Your task to perform on an android device: Open network settings Image 0: 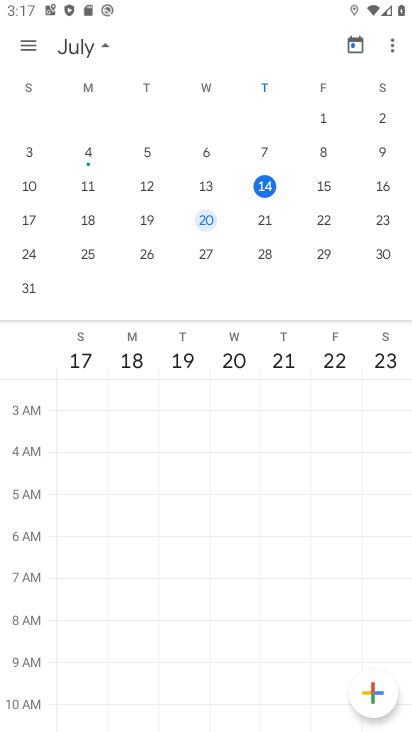
Step 0: press home button
Your task to perform on an android device: Open network settings Image 1: 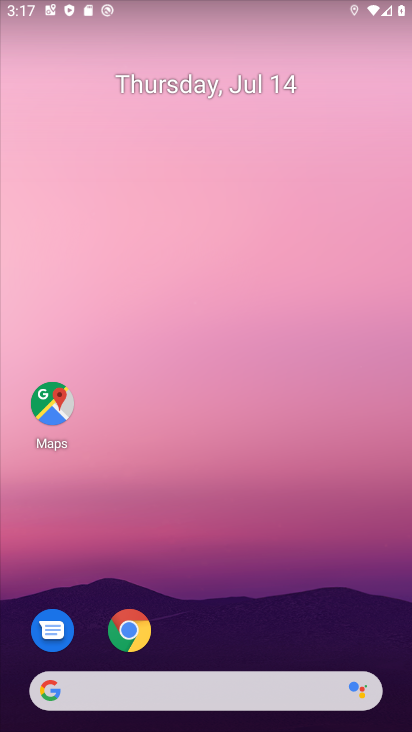
Step 1: drag from (309, 559) to (110, 0)
Your task to perform on an android device: Open network settings Image 2: 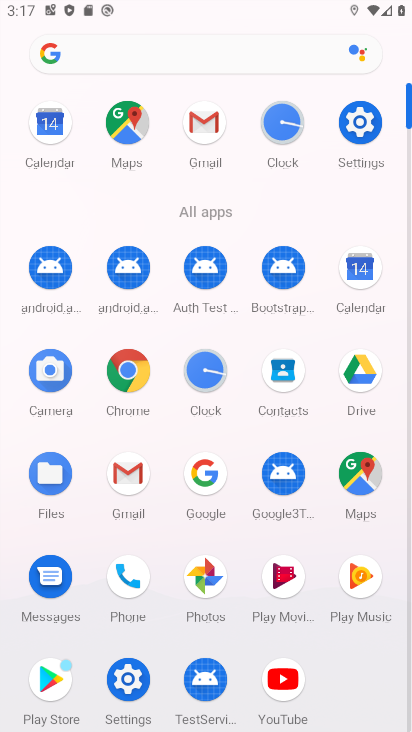
Step 2: click (358, 130)
Your task to perform on an android device: Open network settings Image 3: 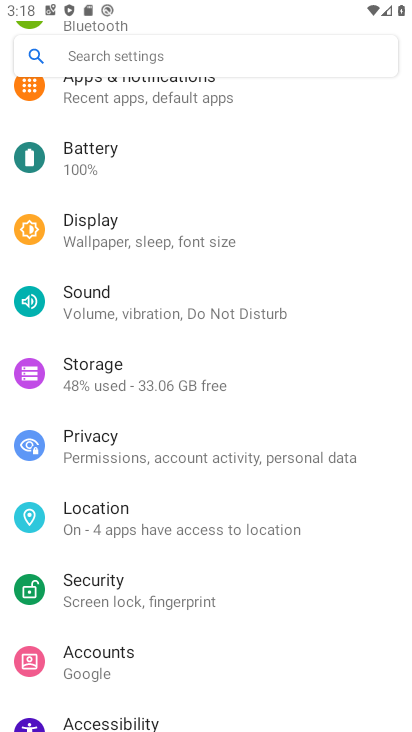
Step 3: drag from (107, 127) to (176, 337)
Your task to perform on an android device: Open network settings Image 4: 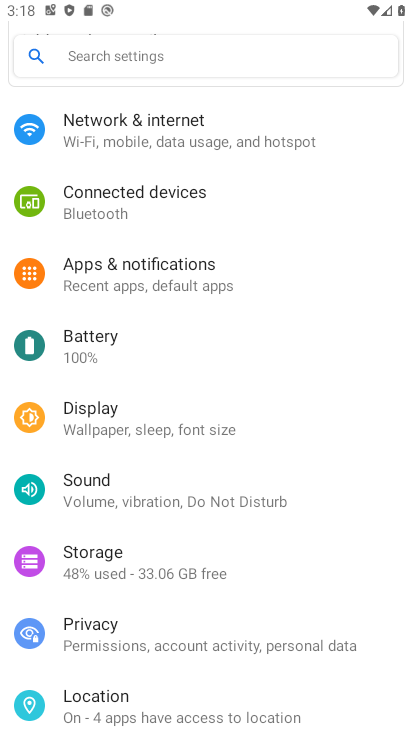
Step 4: click (153, 141)
Your task to perform on an android device: Open network settings Image 5: 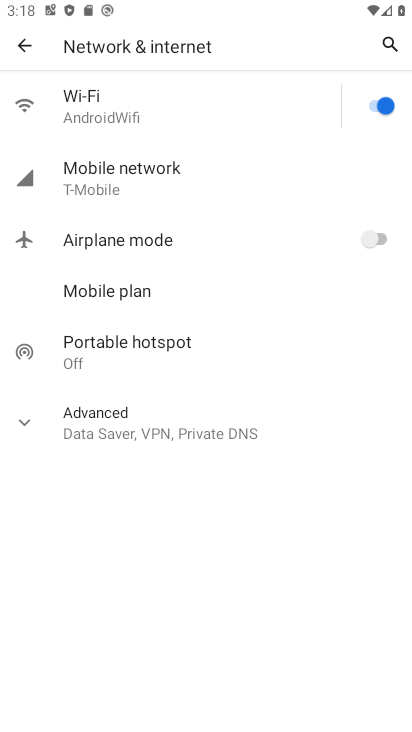
Step 5: task complete